Your task to perform on an android device: check google app version Image 0: 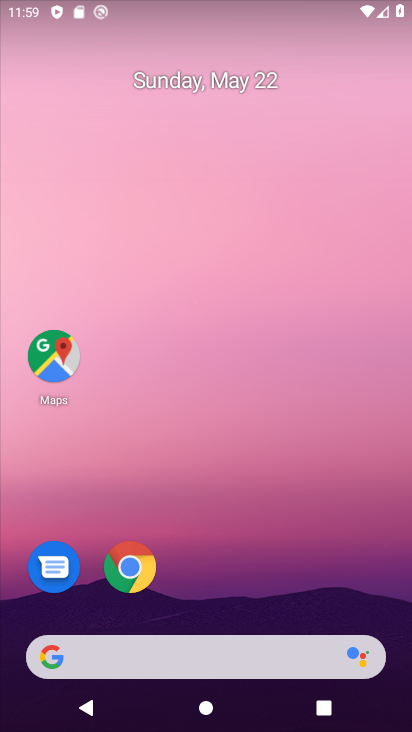
Step 0: drag from (202, 529) to (198, 222)
Your task to perform on an android device: check google app version Image 1: 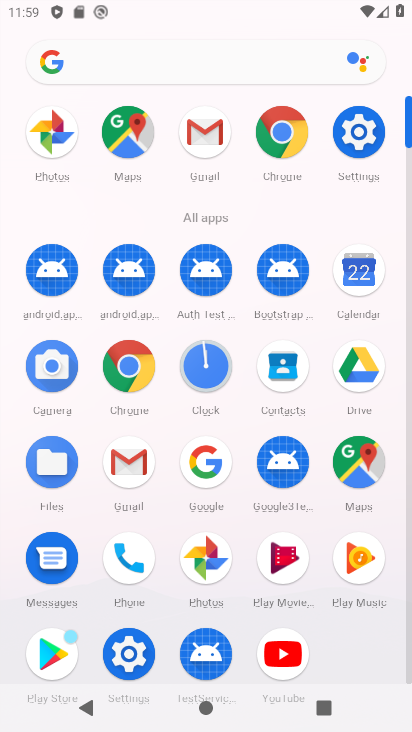
Step 1: click (223, 447)
Your task to perform on an android device: check google app version Image 2: 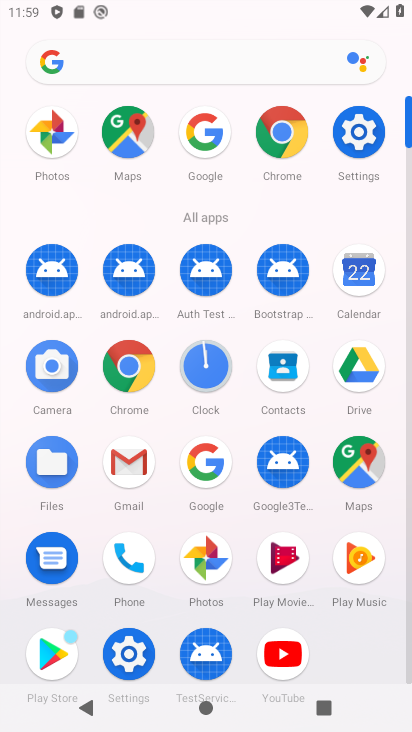
Step 2: click (216, 130)
Your task to perform on an android device: check google app version Image 3: 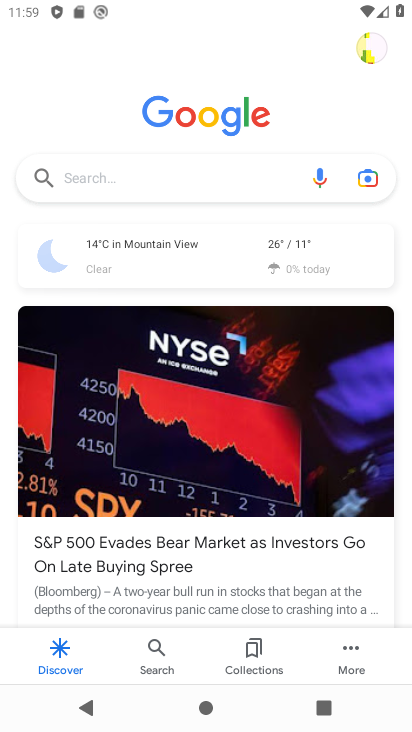
Step 3: click (343, 653)
Your task to perform on an android device: check google app version Image 4: 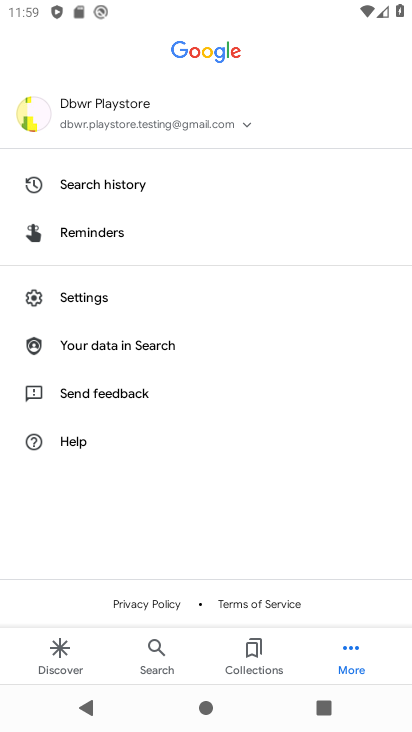
Step 4: click (63, 301)
Your task to perform on an android device: check google app version Image 5: 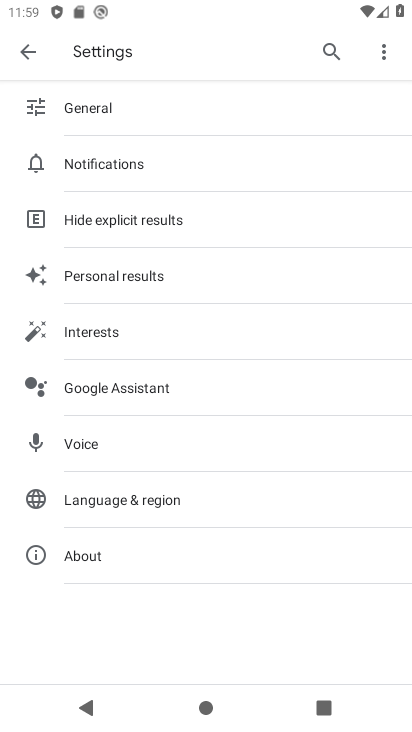
Step 5: click (123, 546)
Your task to perform on an android device: check google app version Image 6: 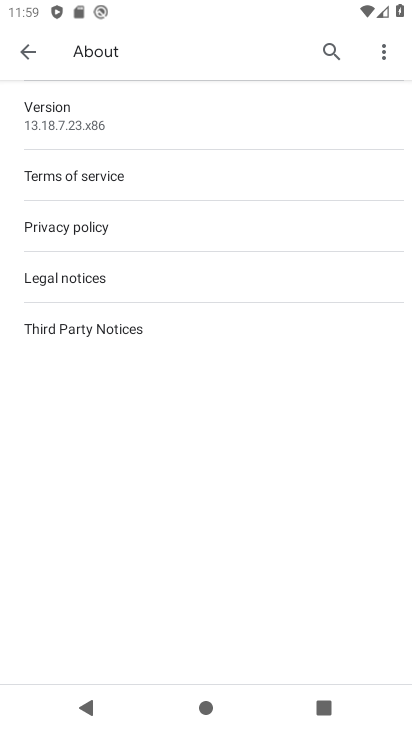
Step 6: click (98, 123)
Your task to perform on an android device: check google app version Image 7: 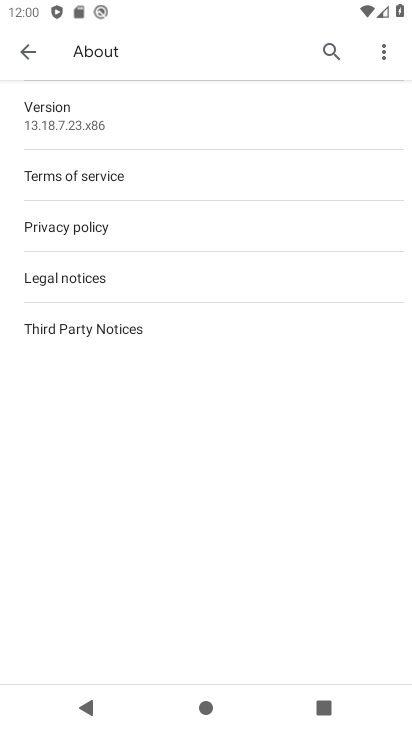
Step 7: click (98, 123)
Your task to perform on an android device: check google app version Image 8: 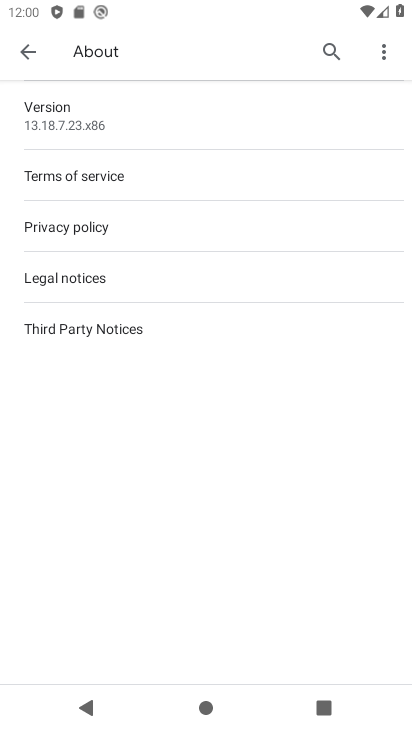
Step 8: click (100, 132)
Your task to perform on an android device: check google app version Image 9: 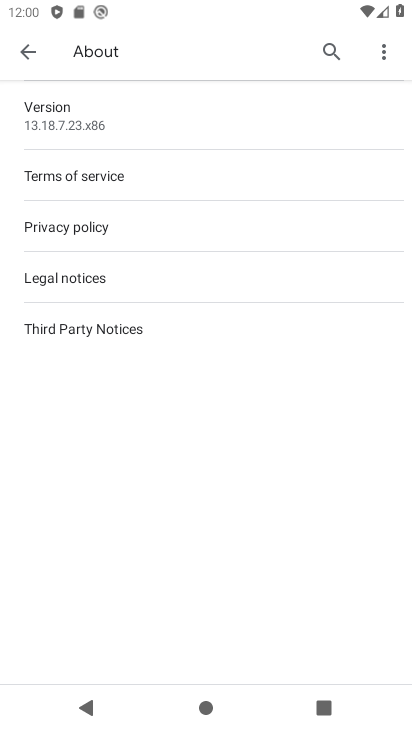
Step 9: task complete